Your task to perform on an android device: Go to battery settings Image 0: 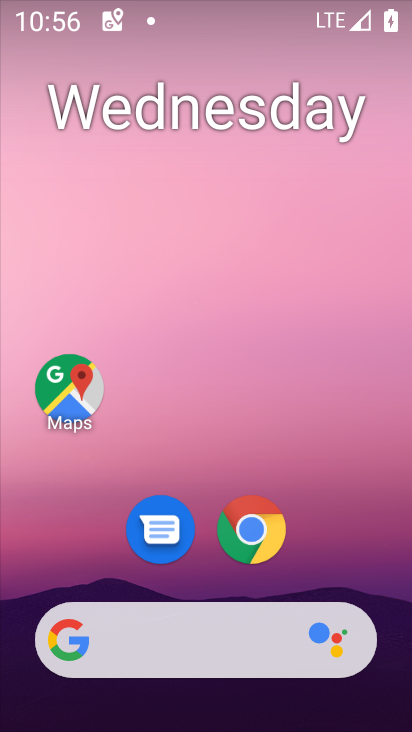
Step 0: drag from (392, 602) to (302, 67)
Your task to perform on an android device: Go to battery settings Image 1: 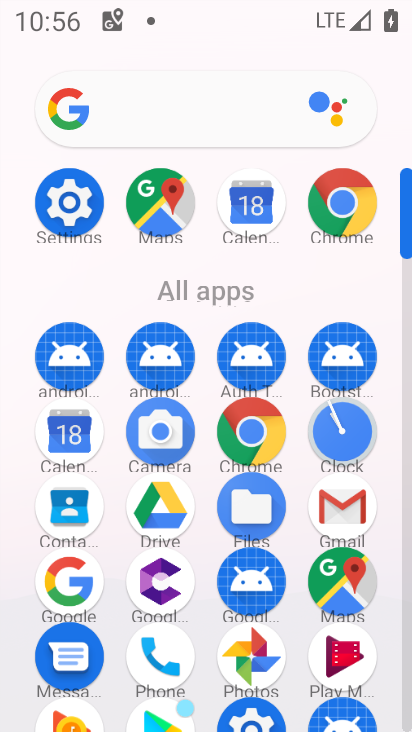
Step 1: click (409, 694)
Your task to perform on an android device: Go to battery settings Image 2: 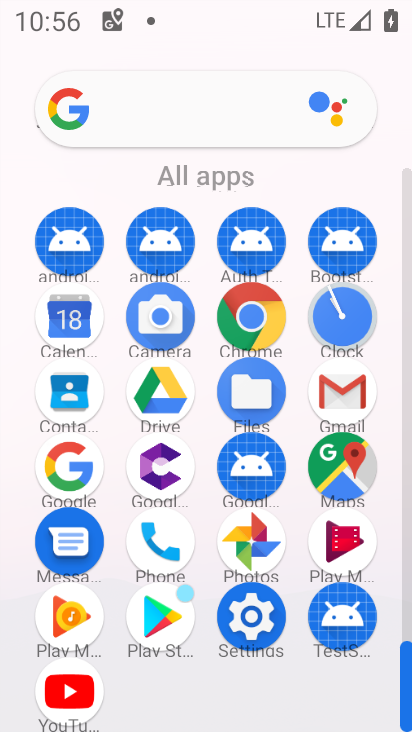
Step 2: click (248, 615)
Your task to perform on an android device: Go to battery settings Image 3: 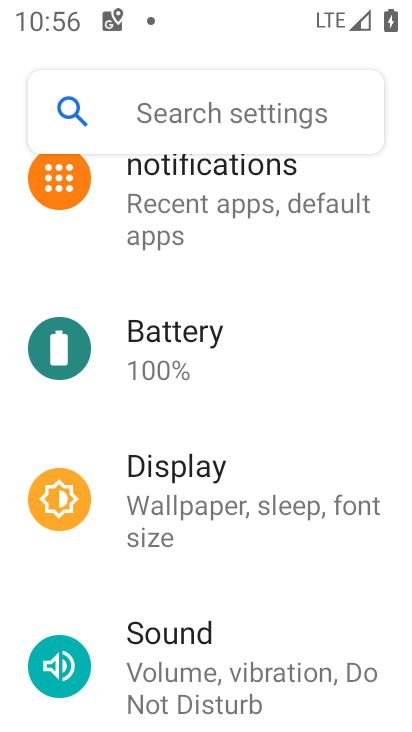
Step 3: click (160, 354)
Your task to perform on an android device: Go to battery settings Image 4: 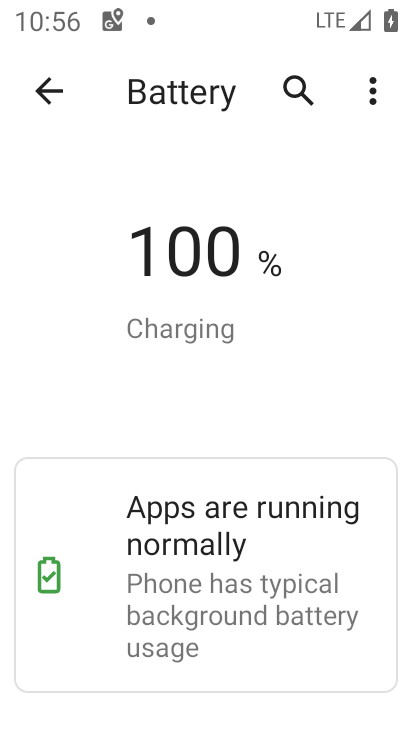
Step 4: task complete